Your task to perform on an android device: check data usage Image 0: 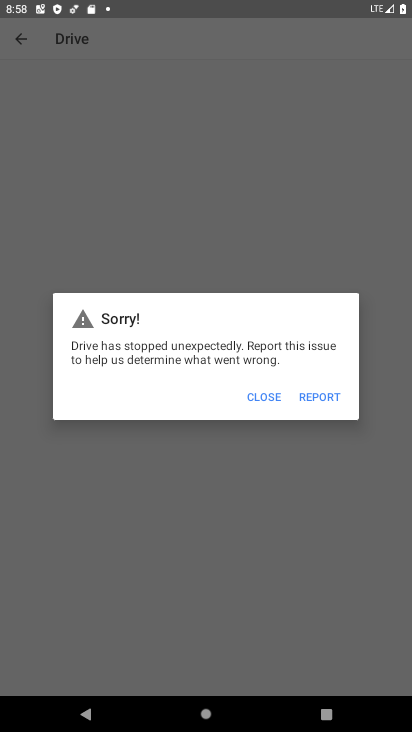
Step 0: press home button
Your task to perform on an android device: check data usage Image 1: 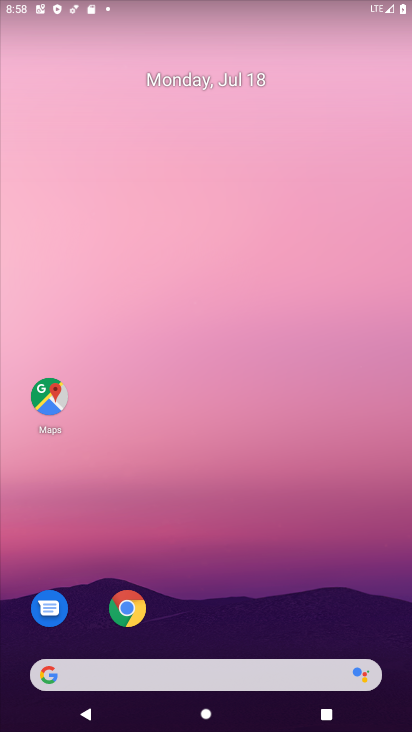
Step 1: drag from (18, 703) to (115, 369)
Your task to perform on an android device: check data usage Image 2: 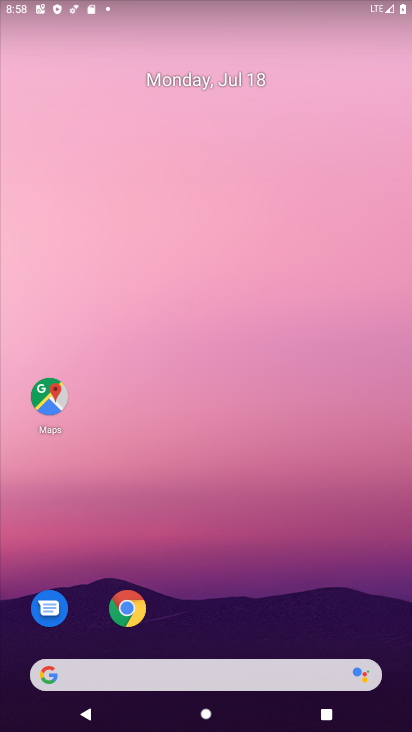
Step 2: drag from (23, 708) to (240, 201)
Your task to perform on an android device: check data usage Image 3: 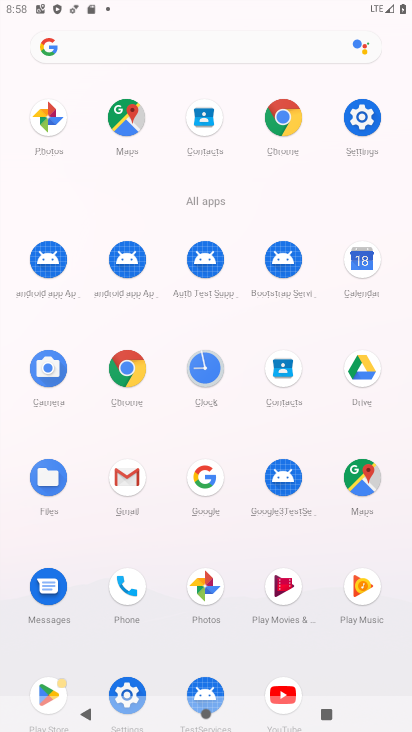
Step 3: click (124, 682)
Your task to perform on an android device: check data usage Image 4: 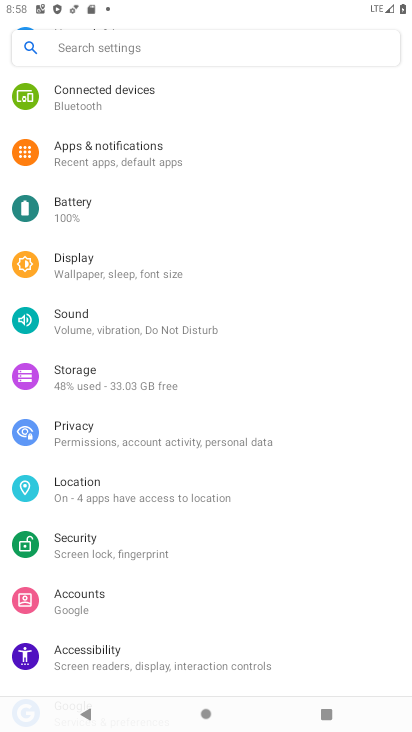
Step 4: drag from (238, 101) to (228, 561)
Your task to perform on an android device: check data usage Image 5: 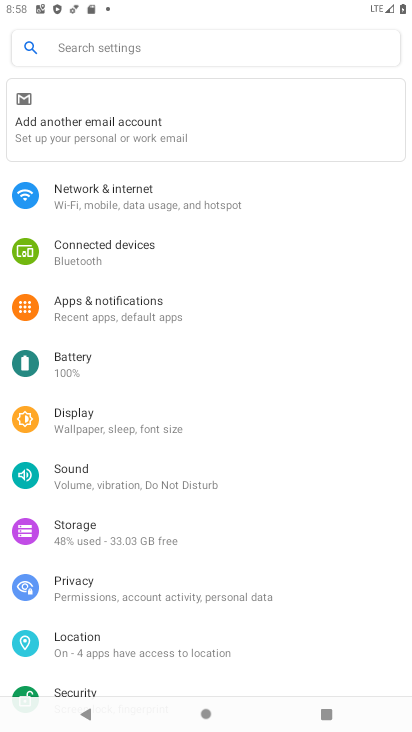
Step 5: click (86, 200)
Your task to perform on an android device: check data usage Image 6: 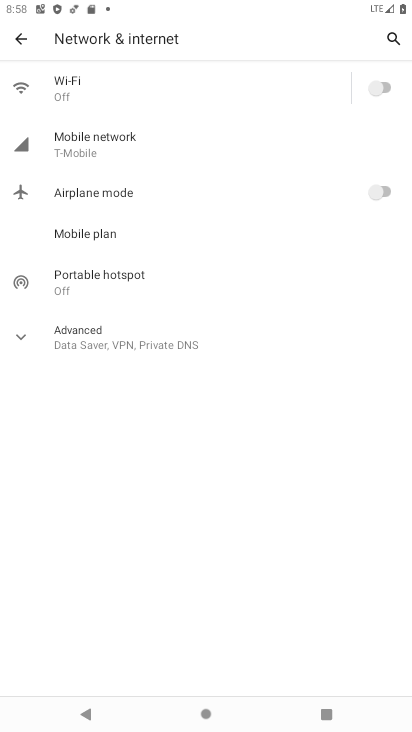
Step 6: click (88, 146)
Your task to perform on an android device: check data usage Image 7: 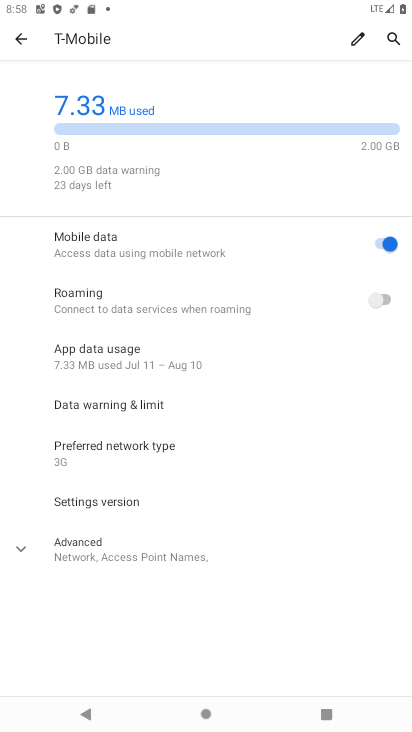
Step 7: task complete